Your task to perform on an android device: toggle wifi Image 0: 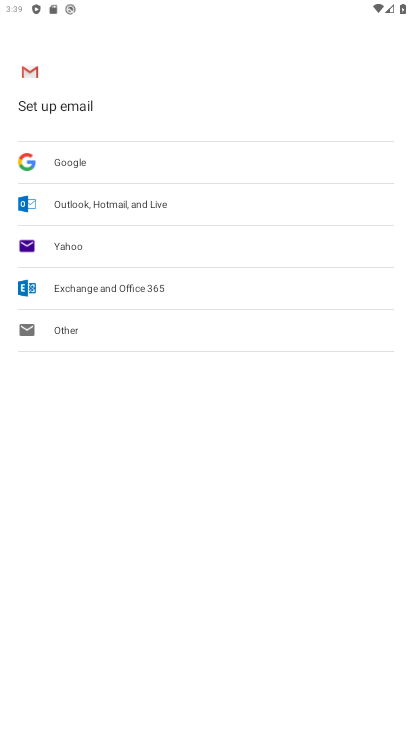
Step 0: press home button
Your task to perform on an android device: toggle wifi Image 1: 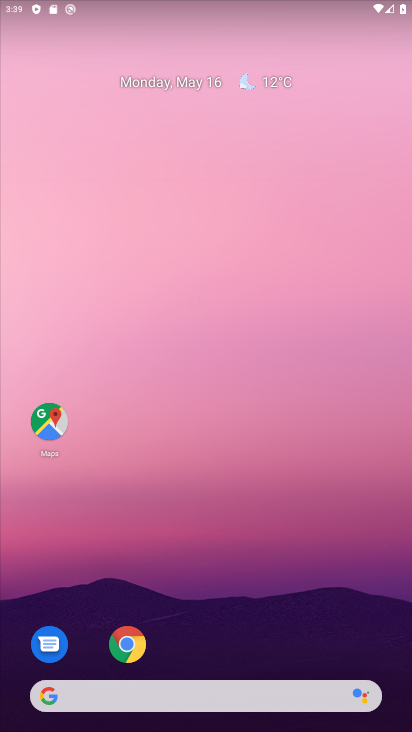
Step 1: drag from (252, 620) to (171, 20)
Your task to perform on an android device: toggle wifi Image 2: 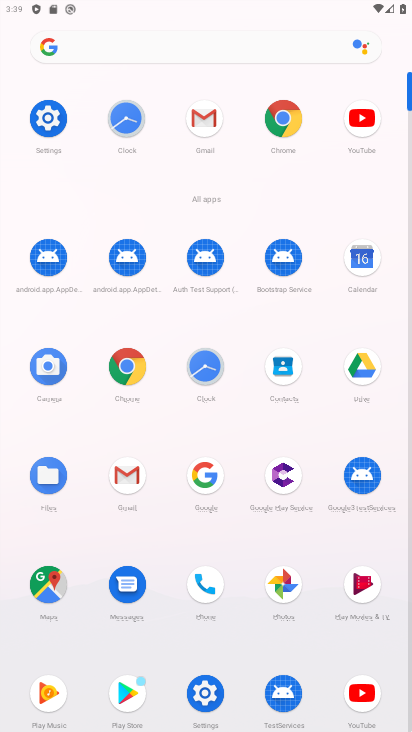
Step 2: click (50, 123)
Your task to perform on an android device: toggle wifi Image 3: 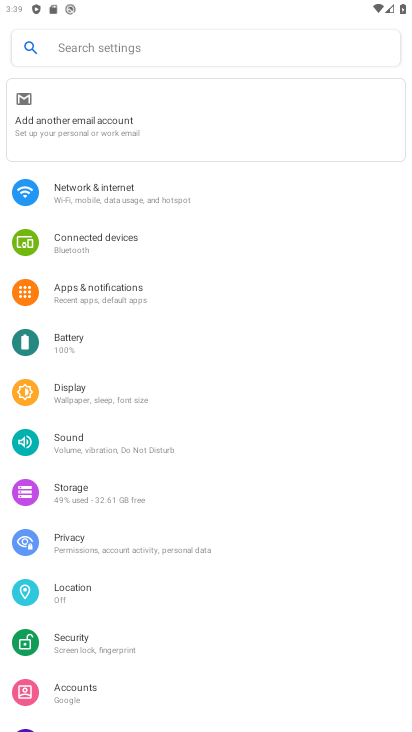
Step 3: click (133, 190)
Your task to perform on an android device: toggle wifi Image 4: 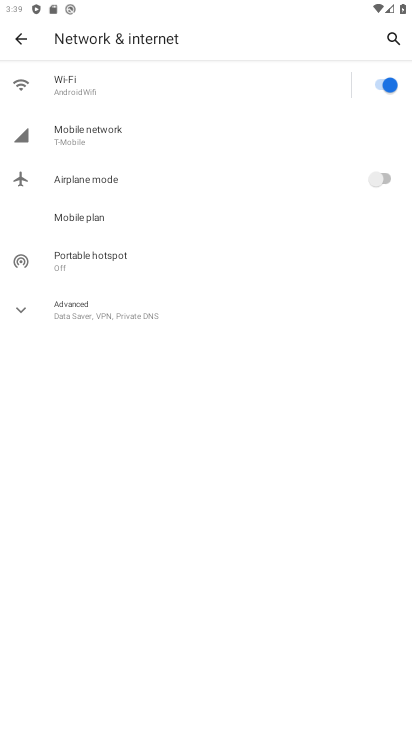
Step 4: click (120, 82)
Your task to perform on an android device: toggle wifi Image 5: 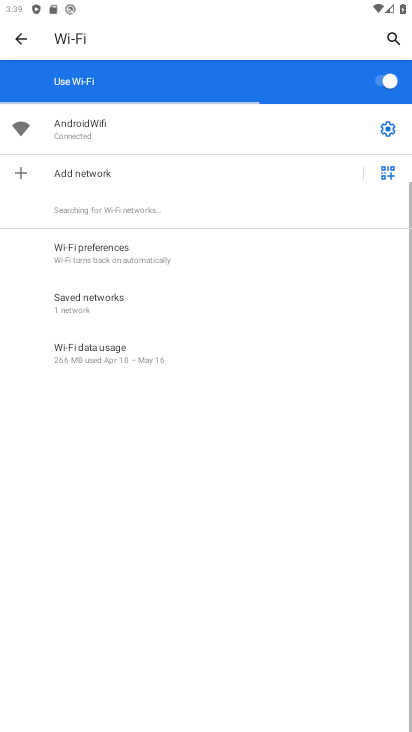
Step 5: click (378, 86)
Your task to perform on an android device: toggle wifi Image 6: 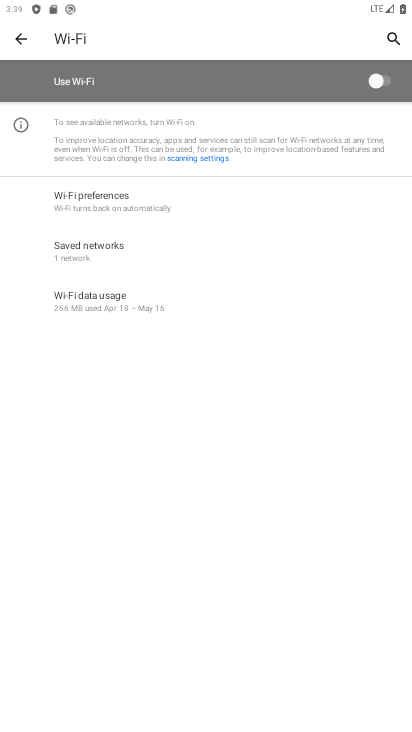
Step 6: task complete